Your task to perform on an android device: create a new album in the google photos Image 0: 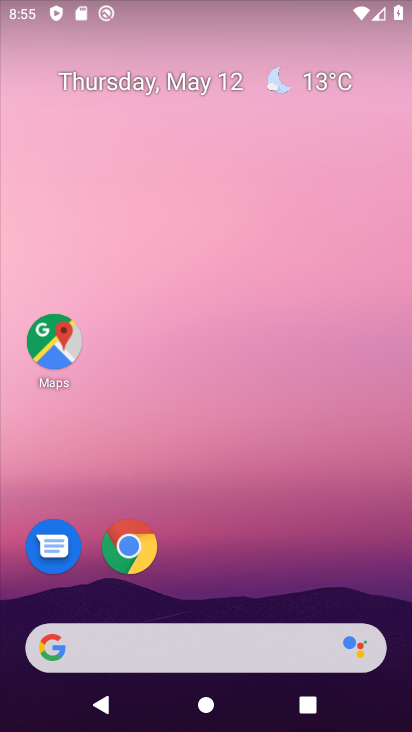
Step 0: drag from (255, 596) to (283, 161)
Your task to perform on an android device: create a new album in the google photos Image 1: 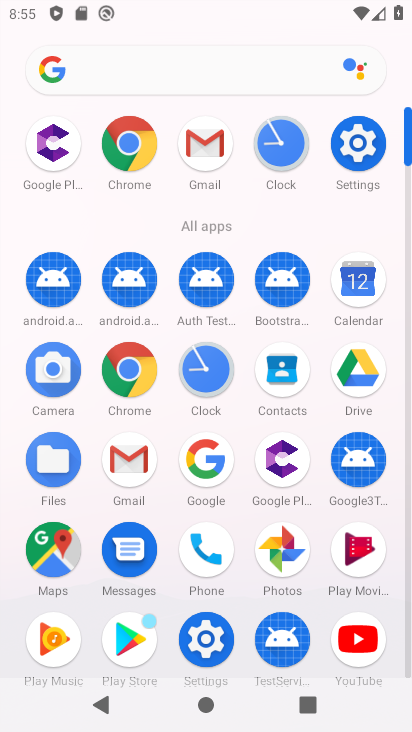
Step 1: click (285, 543)
Your task to perform on an android device: create a new album in the google photos Image 2: 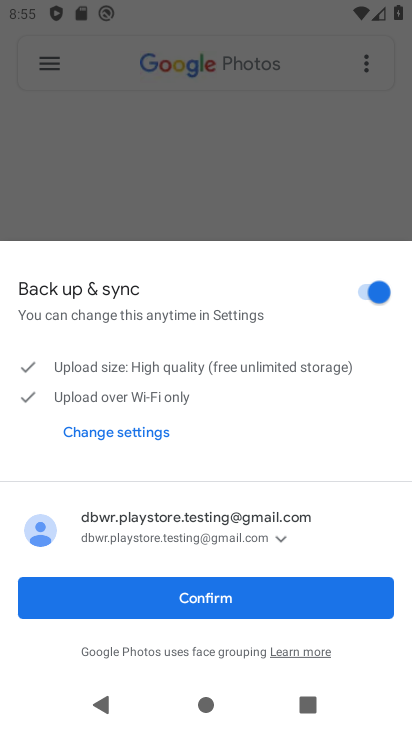
Step 2: click (199, 605)
Your task to perform on an android device: create a new album in the google photos Image 3: 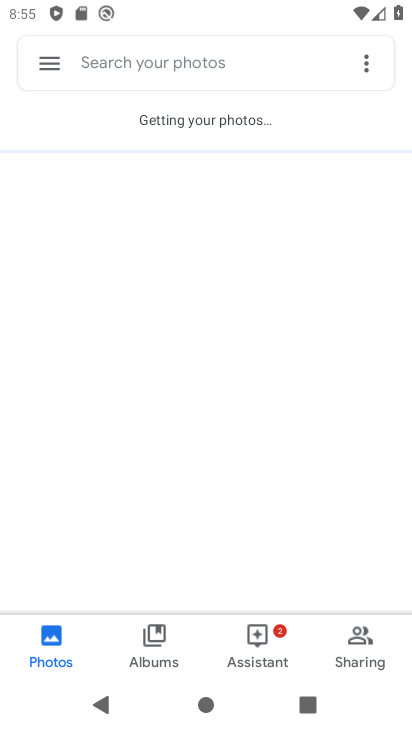
Step 3: click (59, 638)
Your task to perform on an android device: create a new album in the google photos Image 4: 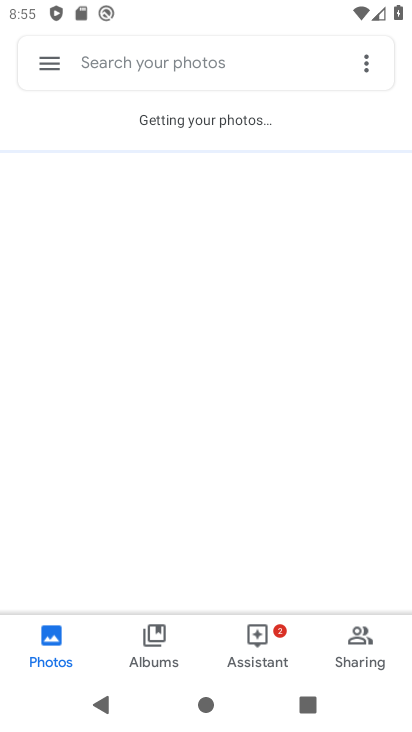
Step 4: click (59, 638)
Your task to perform on an android device: create a new album in the google photos Image 5: 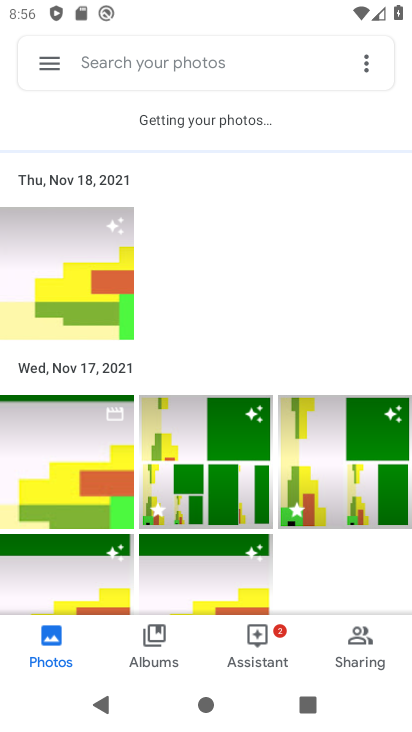
Step 5: click (103, 424)
Your task to perform on an android device: create a new album in the google photos Image 6: 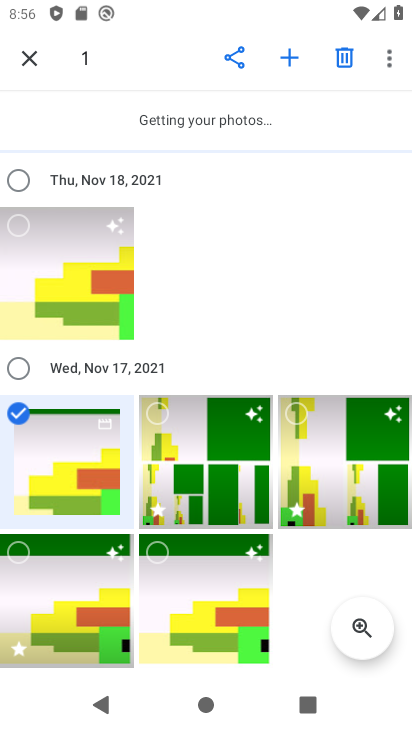
Step 6: click (199, 422)
Your task to perform on an android device: create a new album in the google photos Image 7: 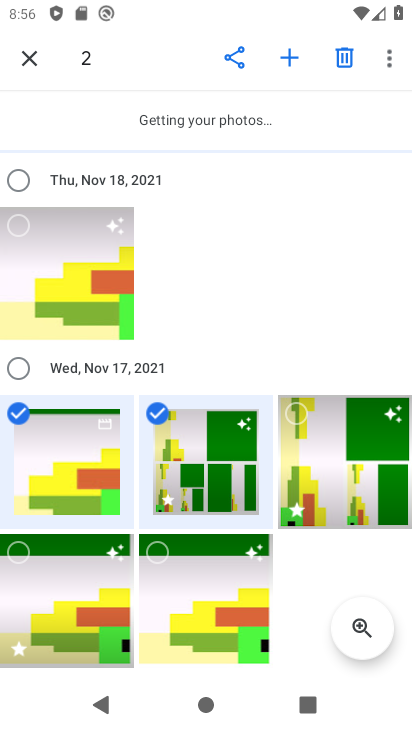
Step 7: click (328, 435)
Your task to perform on an android device: create a new album in the google photos Image 8: 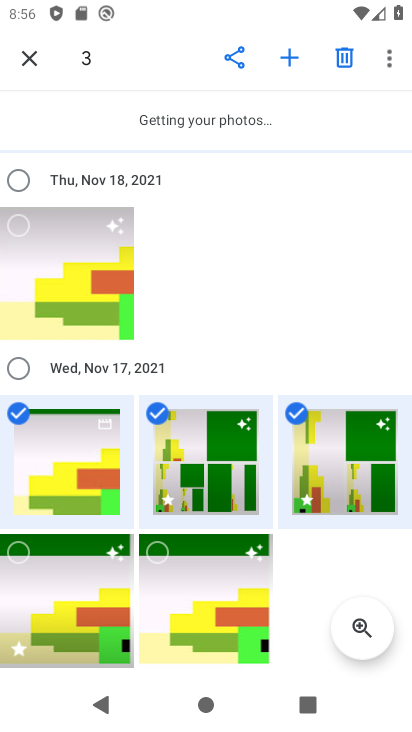
Step 8: click (288, 60)
Your task to perform on an android device: create a new album in the google photos Image 9: 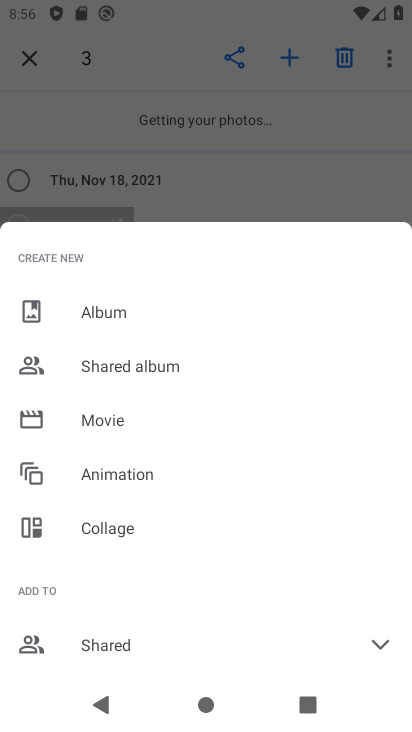
Step 9: click (111, 311)
Your task to perform on an android device: create a new album in the google photos Image 10: 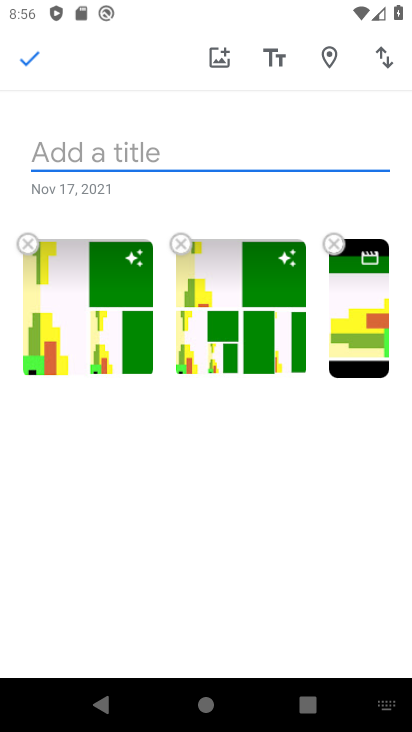
Step 10: type "vbhhgg"
Your task to perform on an android device: create a new album in the google photos Image 11: 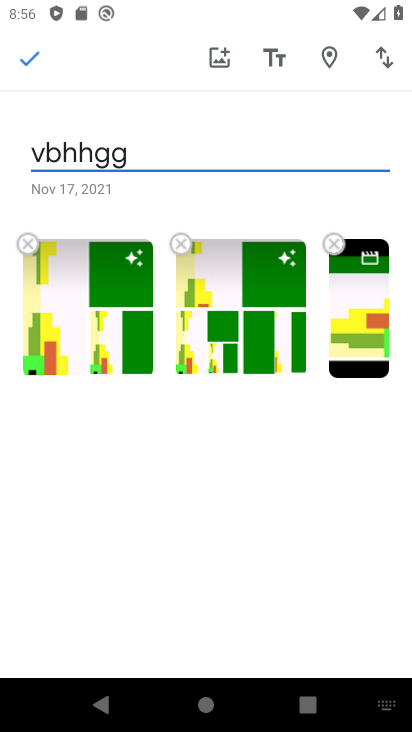
Step 11: click (31, 60)
Your task to perform on an android device: create a new album in the google photos Image 12: 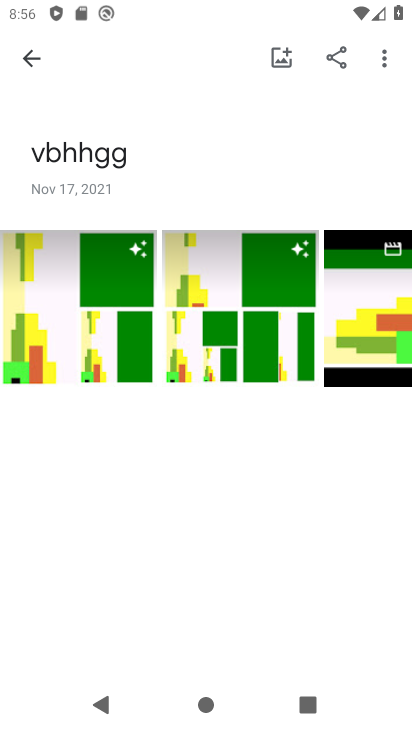
Step 12: task complete